Your task to perform on an android device: make emails show in primary in the gmail app Image 0: 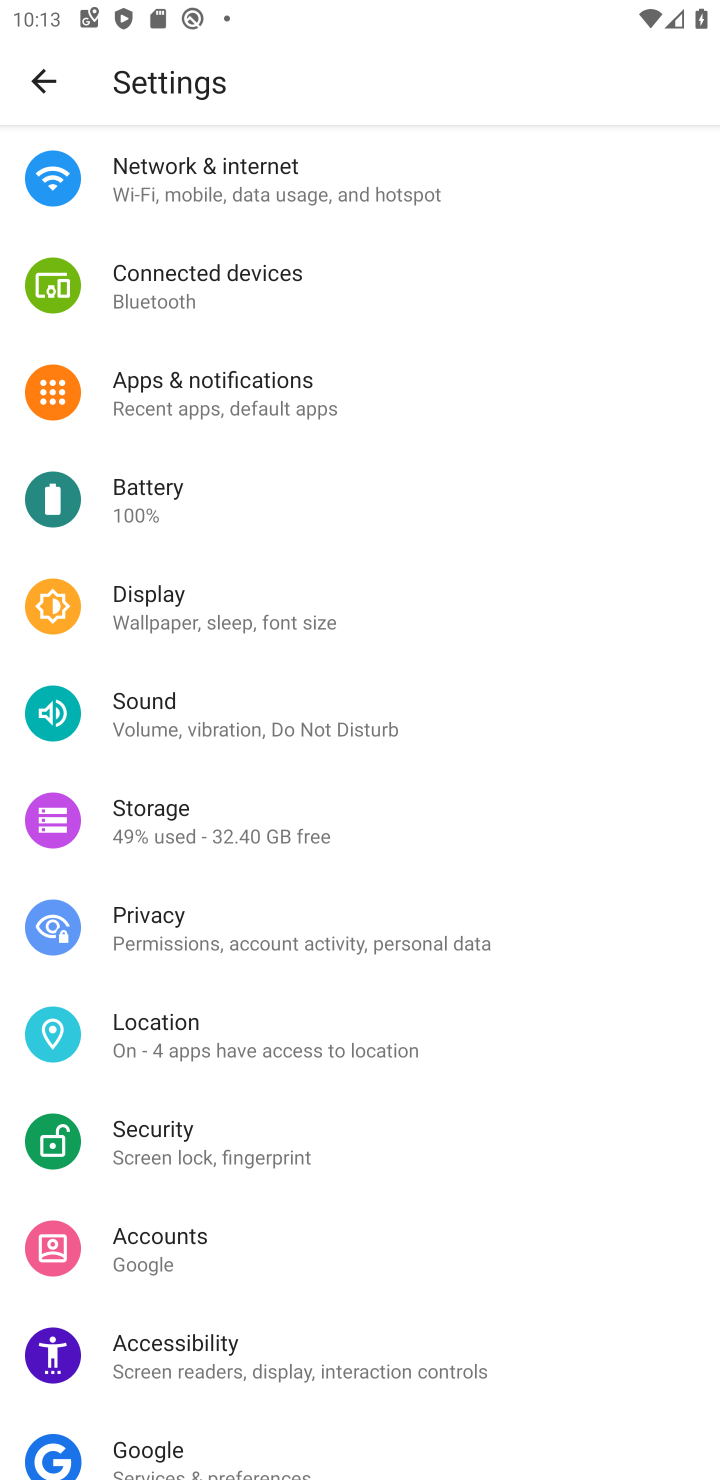
Step 0: press home button
Your task to perform on an android device: make emails show in primary in the gmail app Image 1: 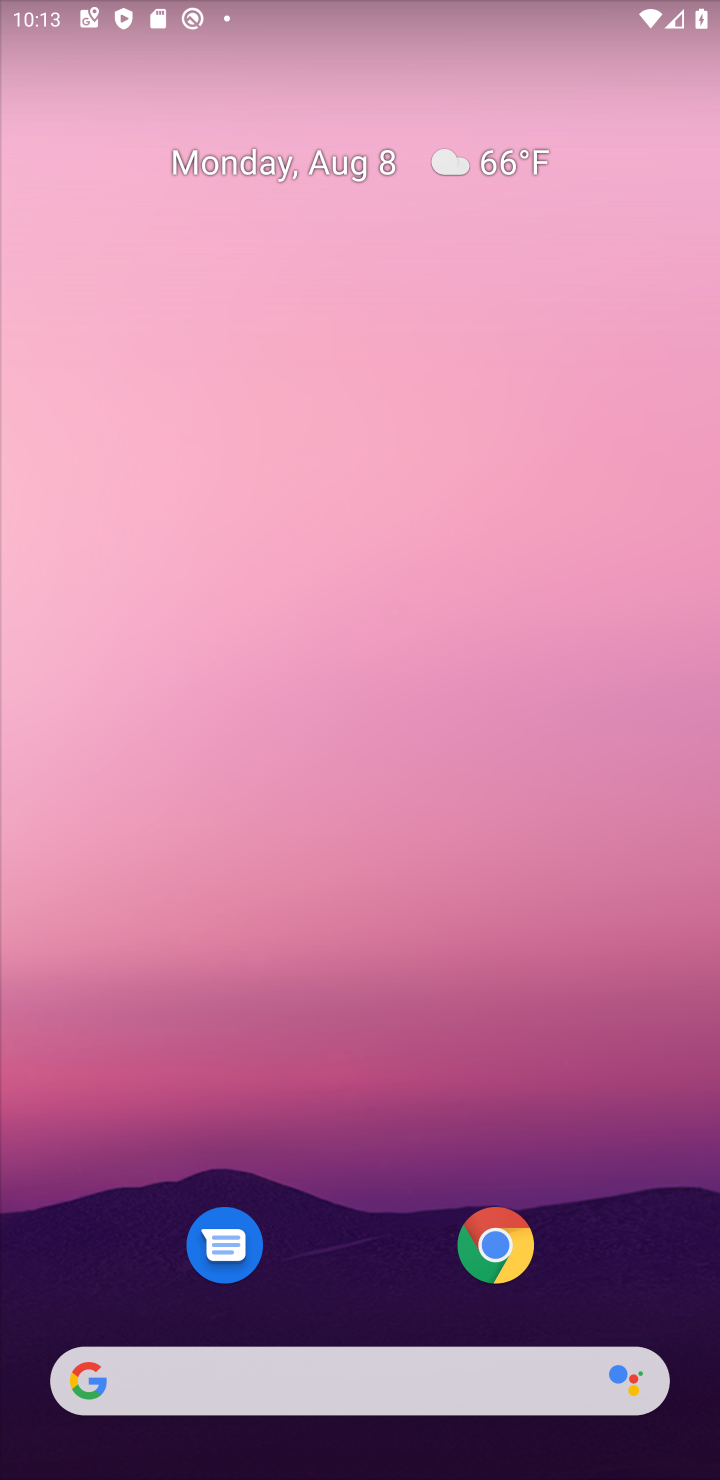
Step 1: drag from (372, 961) to (343, 48)
Your task to perform on an android device: make emails show in primary in the gmail app Image 2: 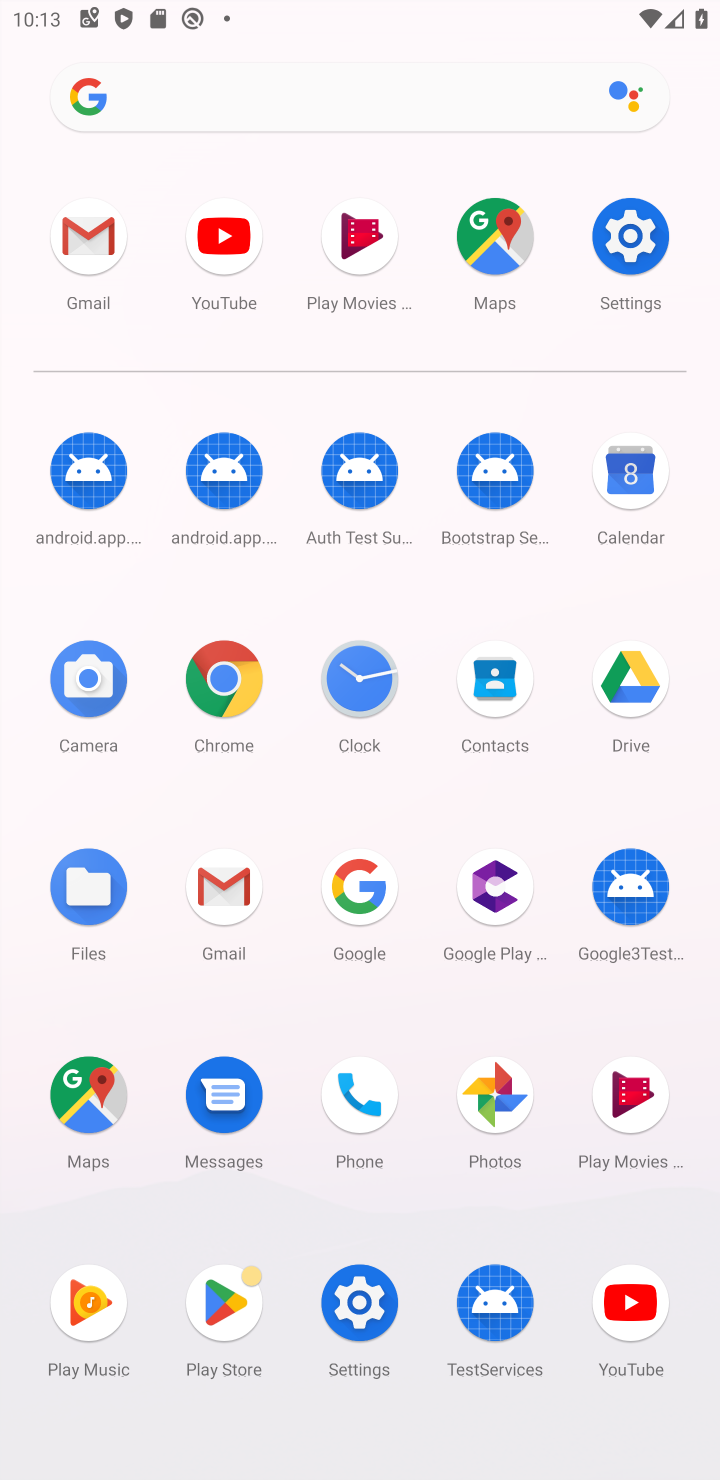
Step 2: click (79, 230)
Your task to perform on an android device: make emails show in primary in the gmail app Image 3: 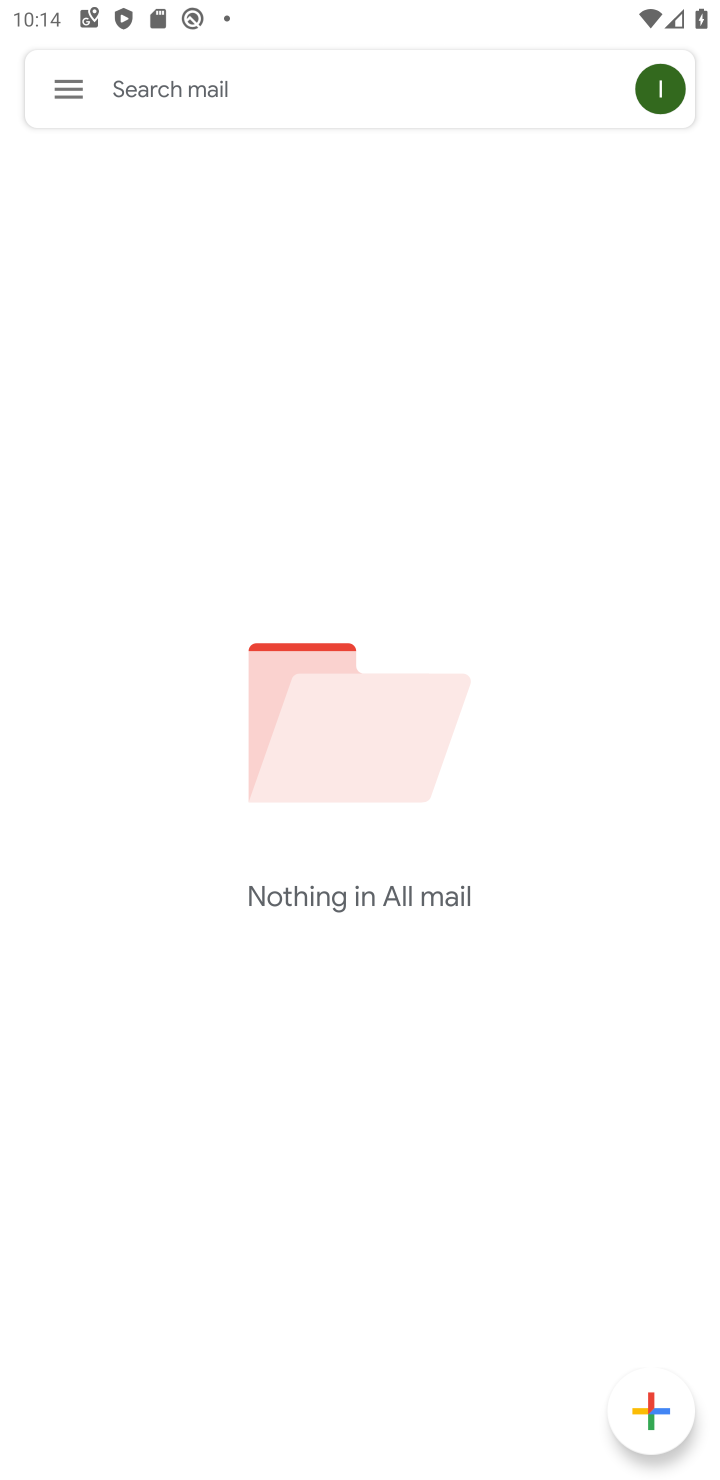
Step 3: click (74, 83)
Your task to perform on an android device: make emails show in primary in the gmail app Image 4: 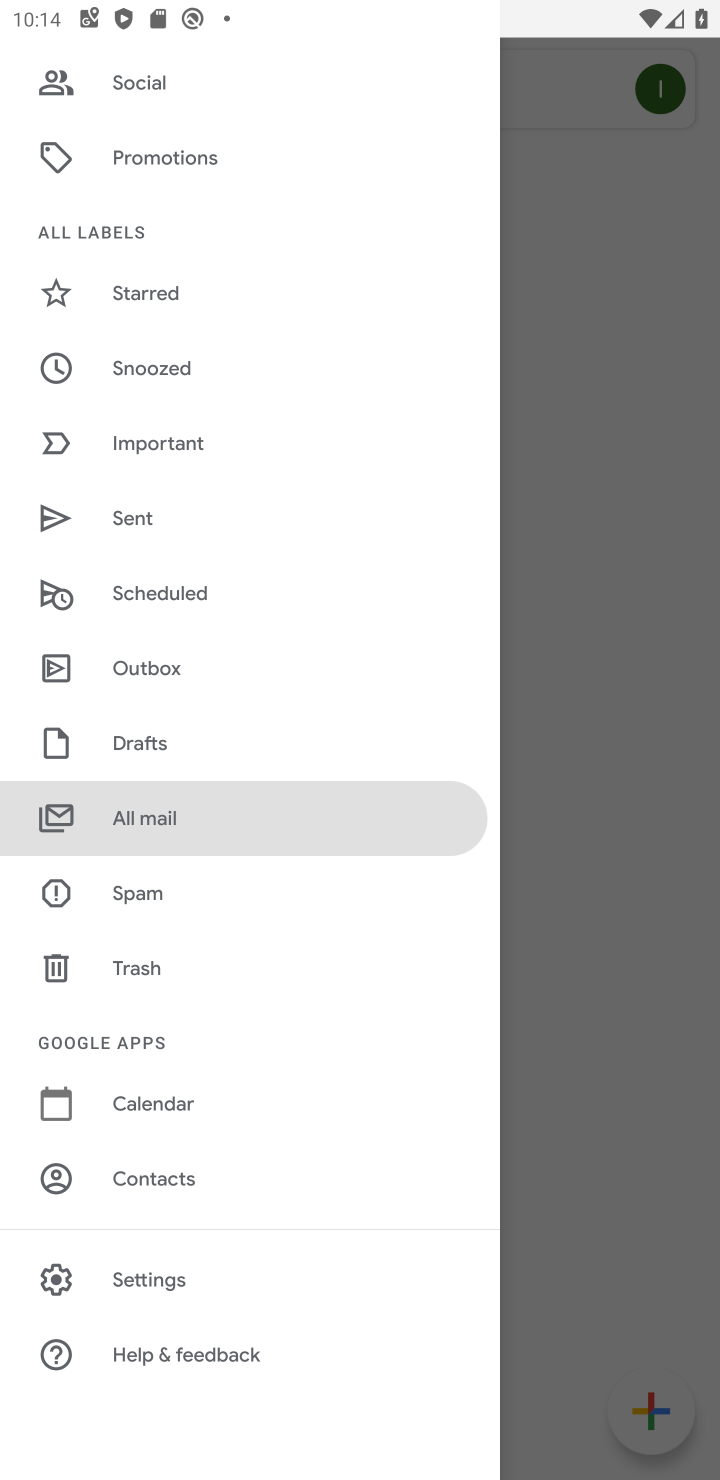
Step 4: drag from (305, 303) to (324, 976)
Your task to perform on an android device: make emails show in primary in the gmail app Image 5: 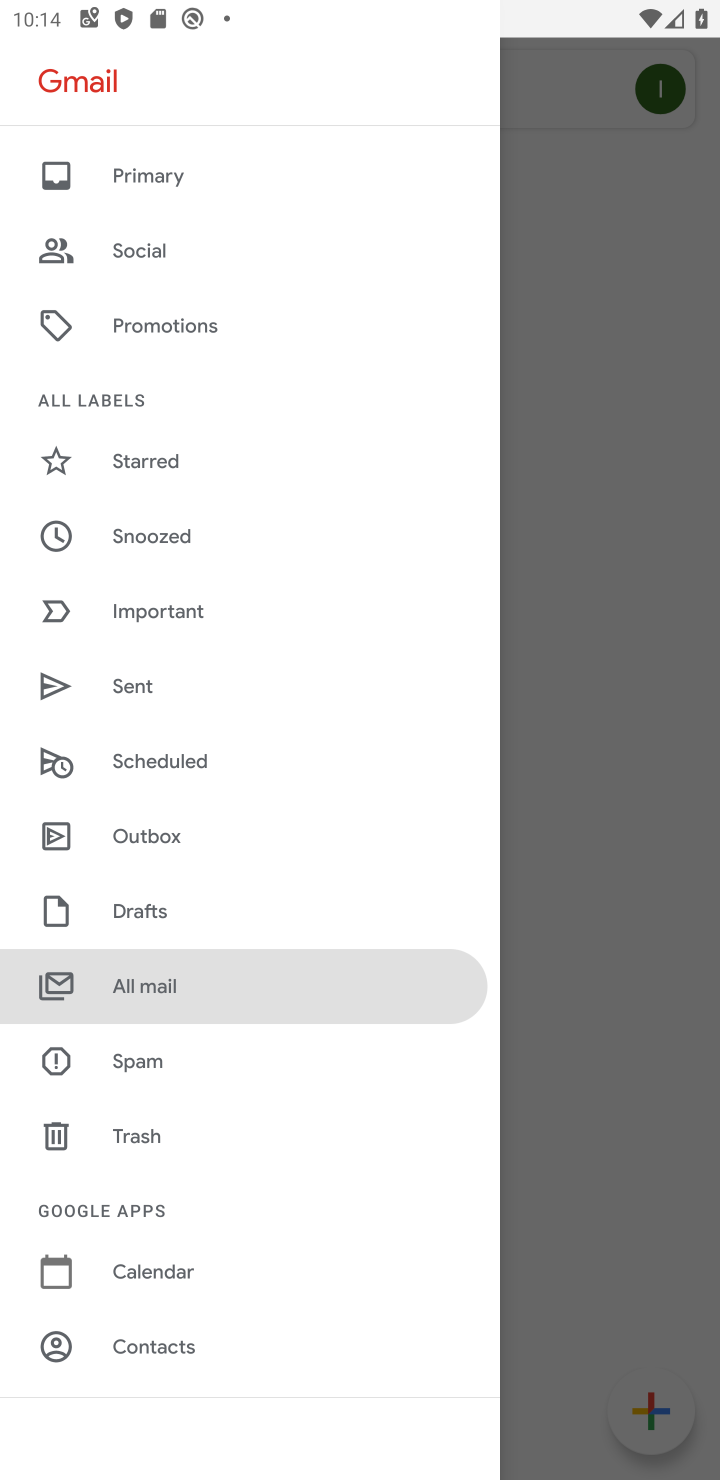
Step 5: click (156, 162)
Your task to perform on an android device: make emails show in primary in the gmail app Image 6: 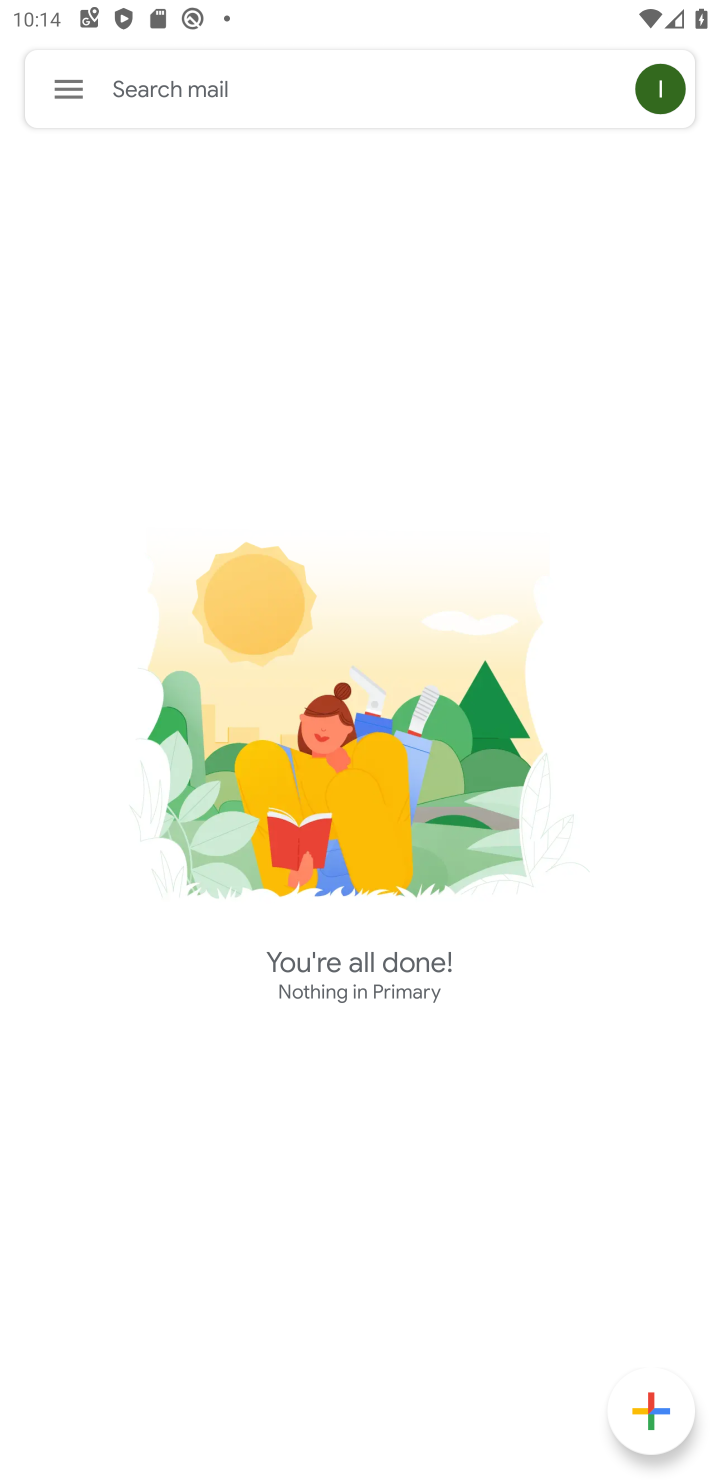
Step 6: task complete